Your task to perform on an android device: install app "Airtel Thanks" Image 0: 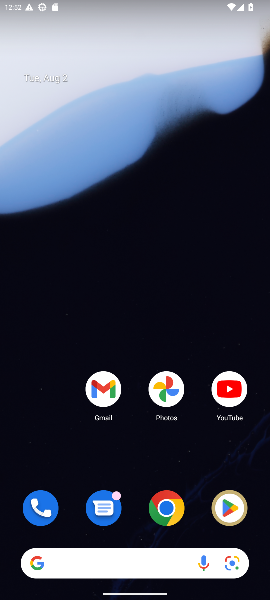
Step 0: click (227, 513)
Your task to perform on an android device: install app "Airtel Thanks" Image 1: 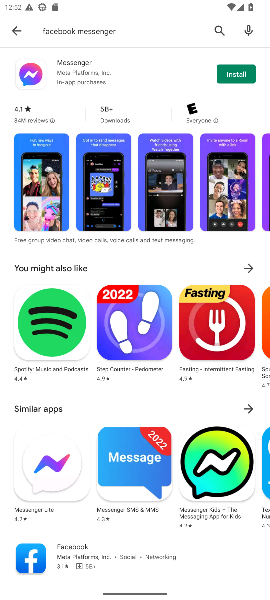
Step 1: click (216, 34)
Your task to perform on an android device: install app "Airtel Thanks" Image 2: 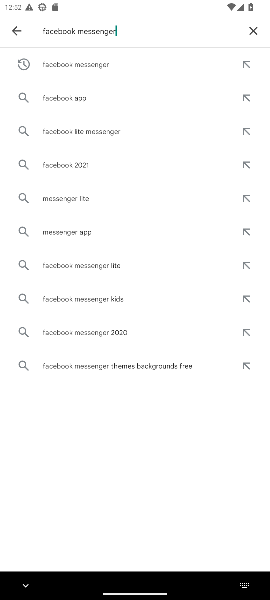
Step 2: click (256, 31)
Your task to perform on an android device: install app "Airtel Thanks" Image 3: 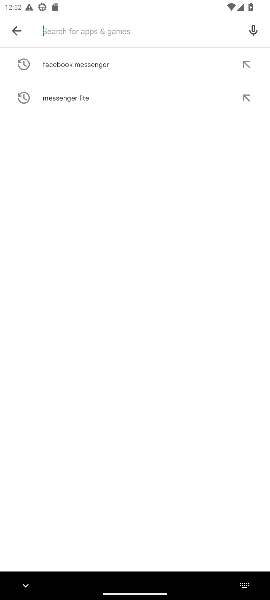
Step 3: type "Airtel Thanks"
Your task to perform on an android device: install app "Airtel Thanks" Image 4: 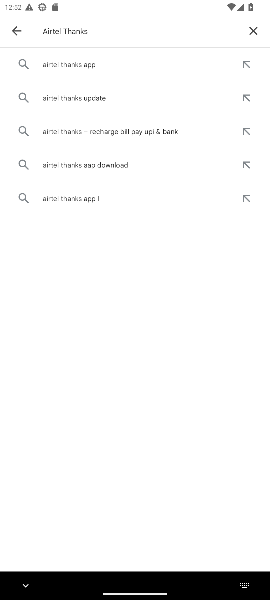
Step 4: click (95, 72)
Your task to perform on an android device: install app "Airtel Thanks" Image 5: 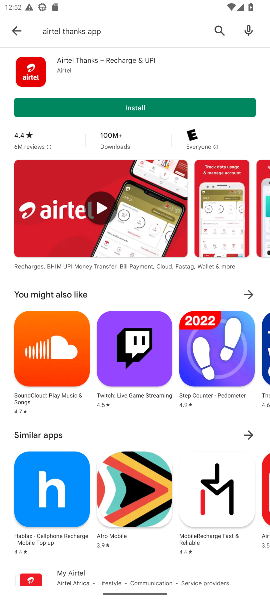
Step 5: click (163, 109)
Your task to perform on an android device: install app "Airtel Thanks" Image 6: 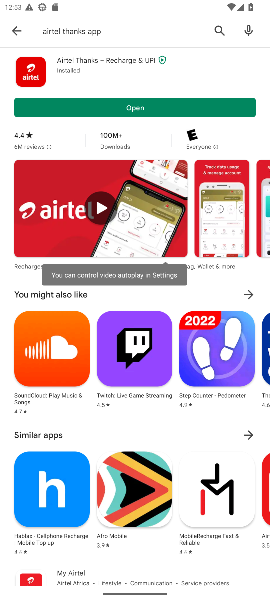
Step 6: task complete